Your task to perform on an android device: open app "PlayWell" Image 0: 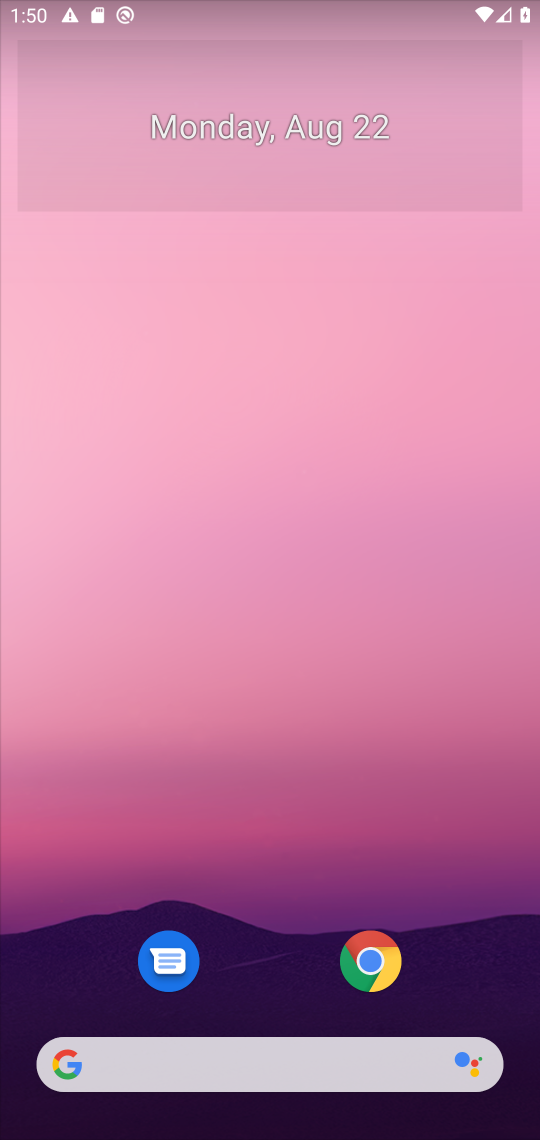
Step 0: press home button
Your task to perform on an android device: open app "PlayWell" Image 1: 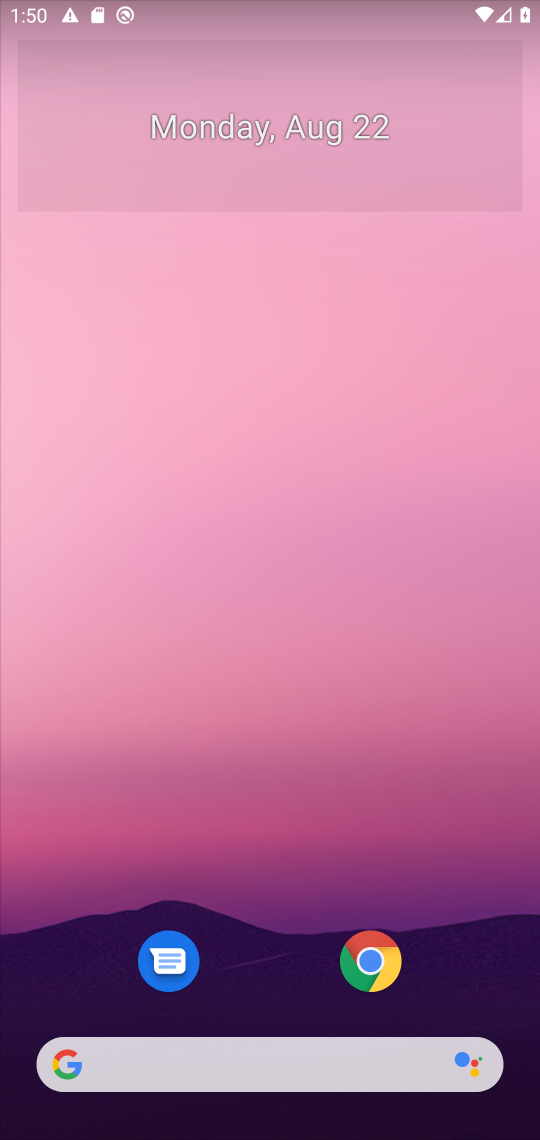
Step 1: drag from (463, 959) to (511, 100)
Your task to perform on an android device: open app "PlayWell" Image 2: 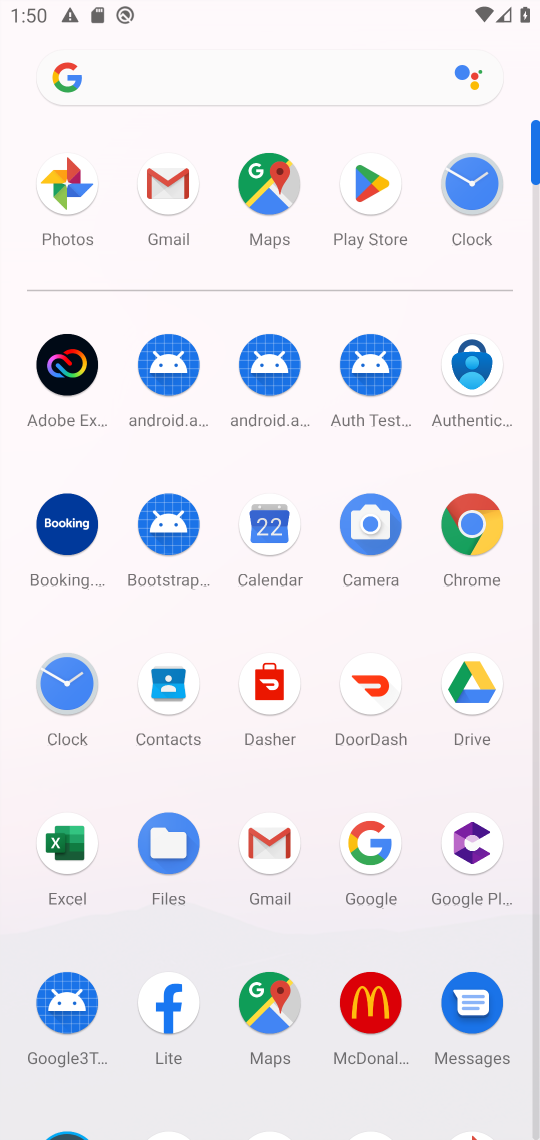
Step 2: click (372, 182)
Your task to perform on an android device: open app "PlayWell" Image 3: 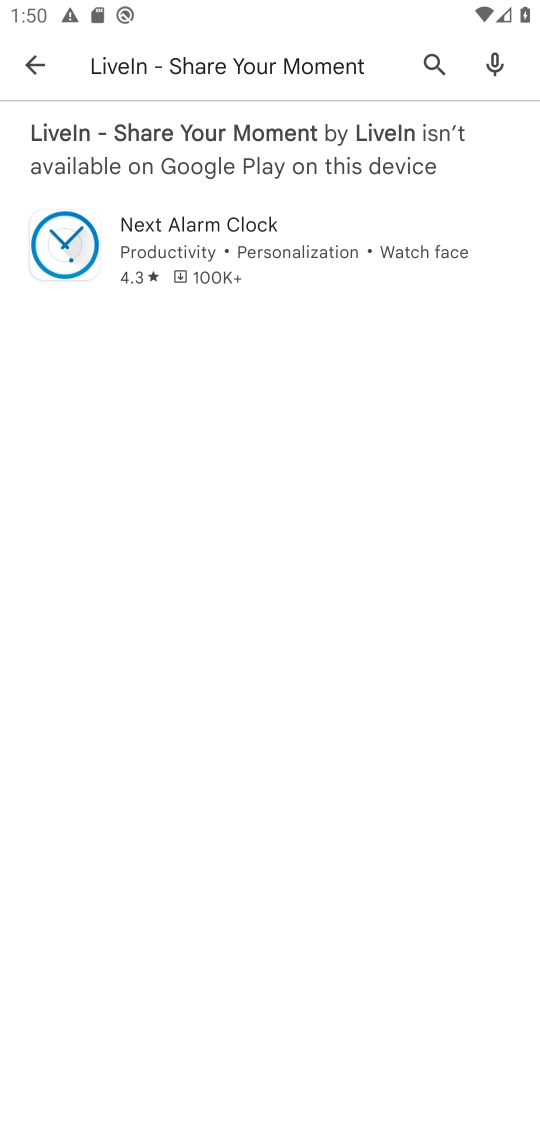
Step 3: press back button
Your task to perform on an android device: open app "PlayWell" Image 4: 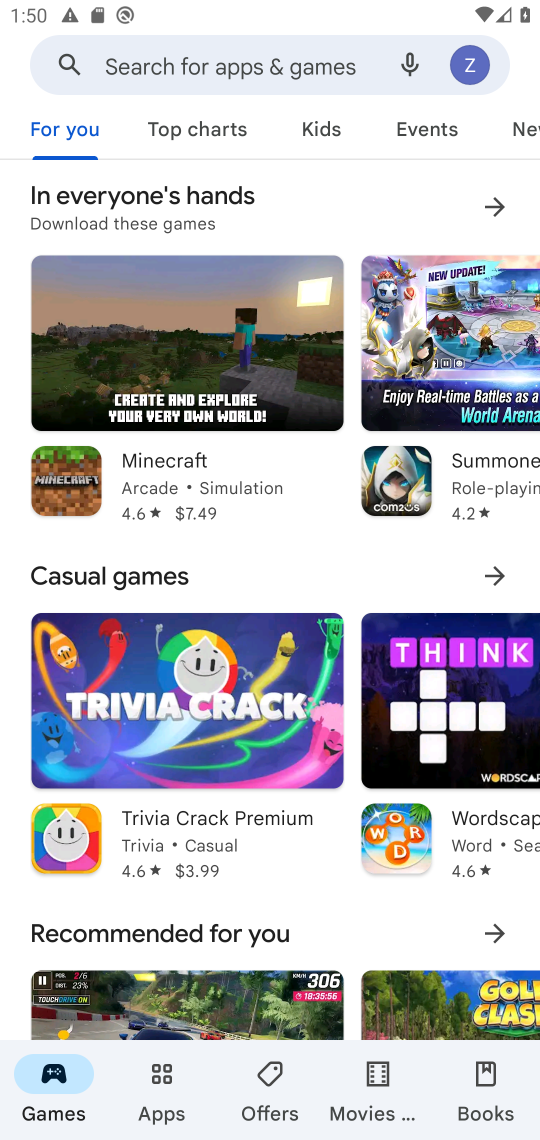
Step 4: click (272, 69)
Your task to perform on an android device: open app "PlayWell" Image 5: 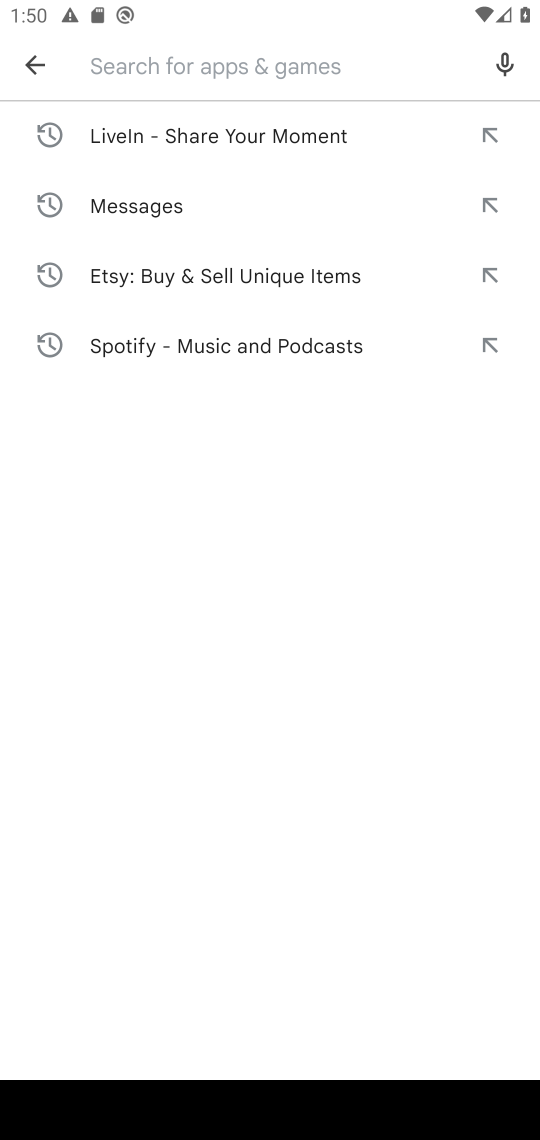
Step 5: type "PlayWell"
Your task to perform on an android device: open app "PlayWell" Image 6: 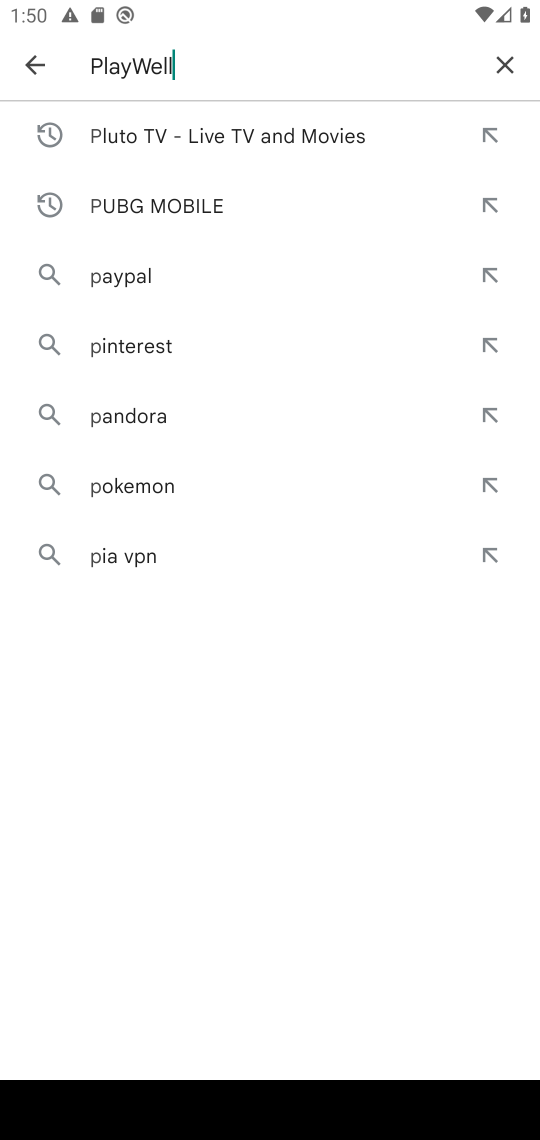
Step 6: press enter
Your task to perform on an android device: open app "PlayWell" Image 7: 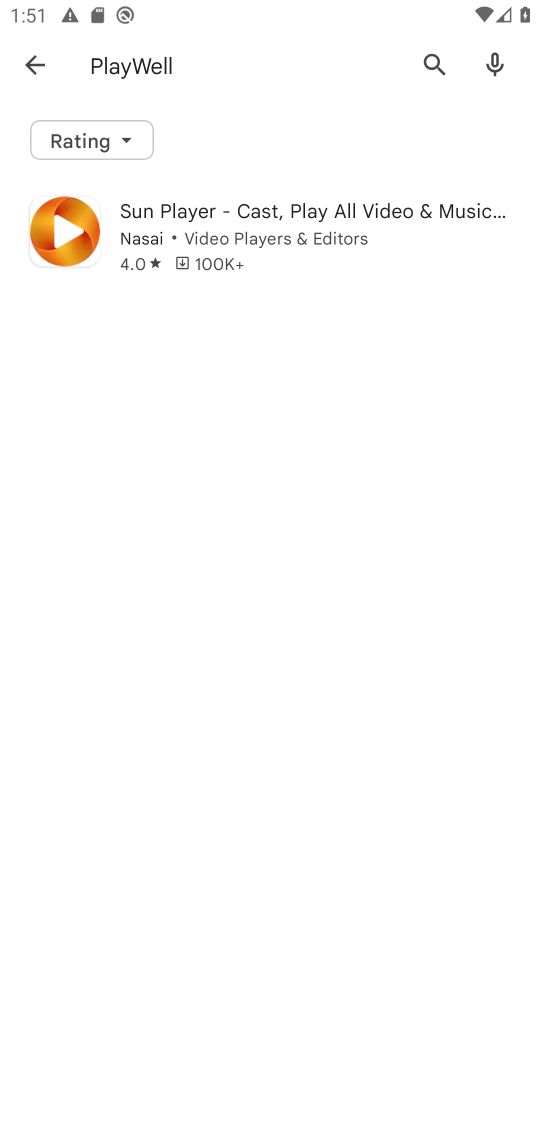
Step 7: task complete